Your task to perform on an android device: Open calendar and show me the first week of next month Image 0: 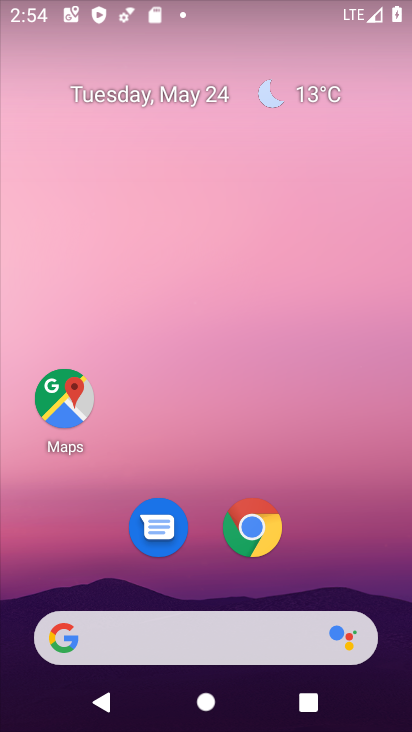
Step 0: drag from (321, 548) to (355, 131)
Your task to perform on an android device: Open calendar and show me the first week of next month Image 1: 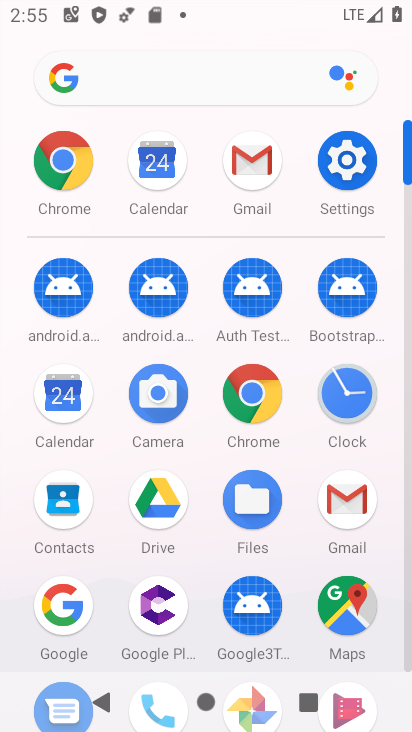
Step 1: click (67, 398)
Your task to perform on an android device: Open calendar and show me the first week of next month Image 2: 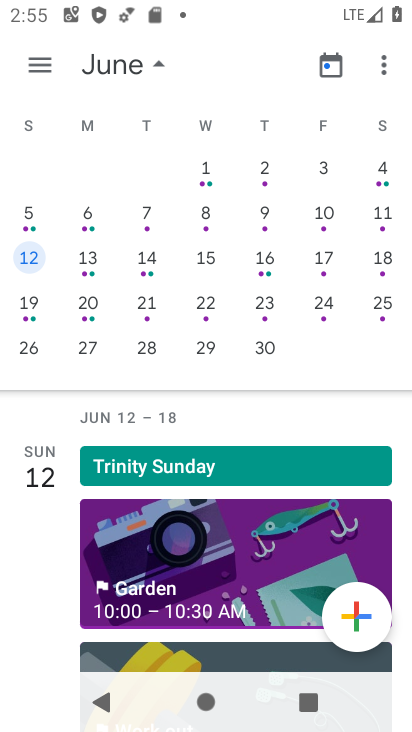
Step 2: click (209, 168)
Your task to perform on an android device: Open calendar and show me the first week of next month Image 3: 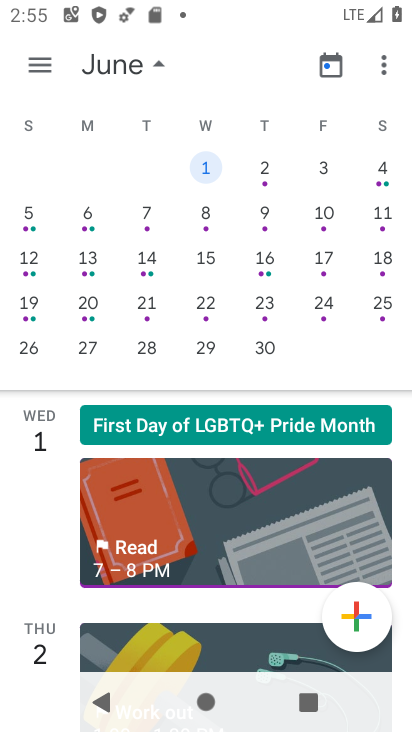
Step 3: task complete